Your task to perform on an android device: stop showing notifications on the lock screen Image 0: 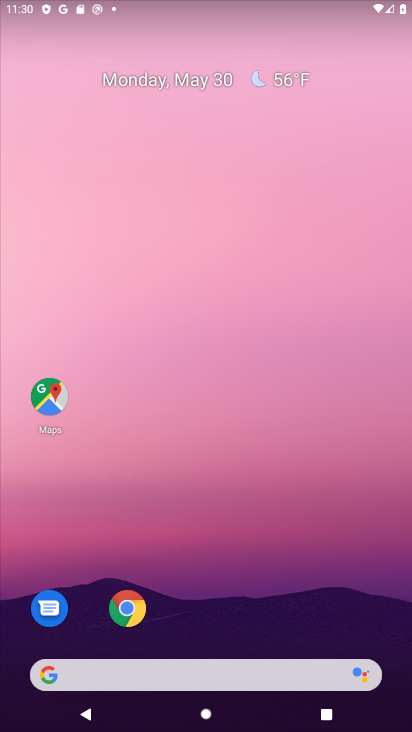
Step 0: drag from (215, 621) to (275, 61)
Your task to perform on an android device: stop showing notifications on the lock screen Image 1: 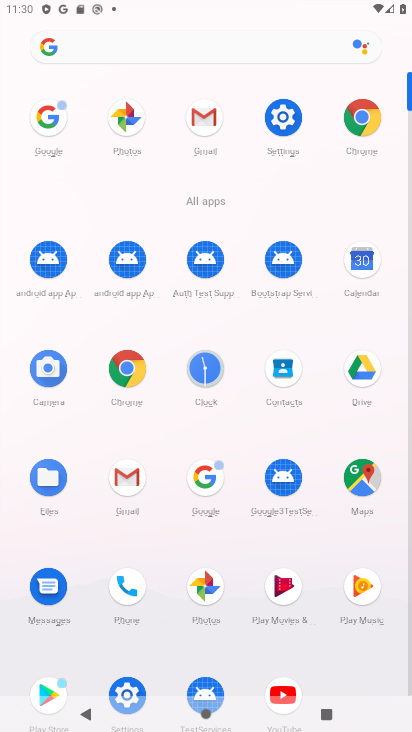
Step 1: click (280, 115)
Your task to perform on an android device: stop showing notifications on the lock screen Image 2: 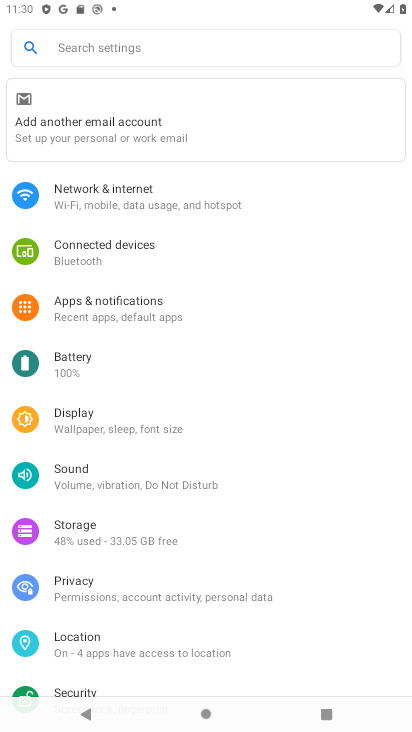
Step 2: click (120, 194)
Your task to perform on an android device: stop showing notifications on the lock screen Image 3: 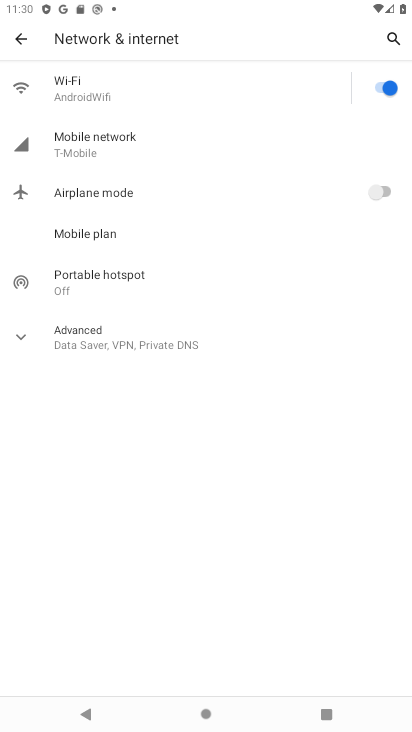
Step 3: press back button
Your task to perform on an android device: stop showing notifications on the lock screen Image 4: 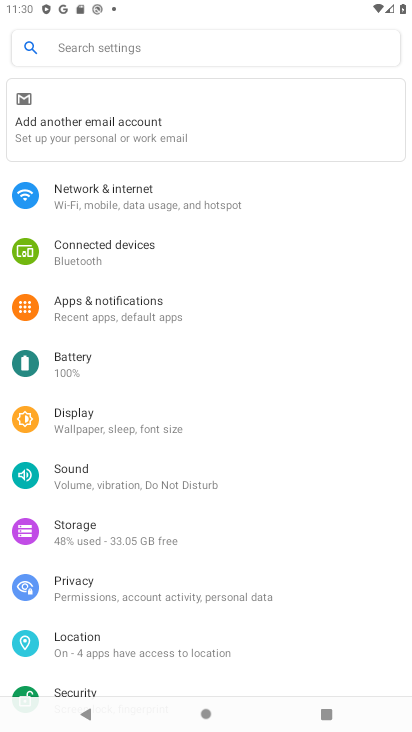
Step 4: click (140, 300)
Your task to perform on an android device: stop showing notifications on the lock screen Image 5: 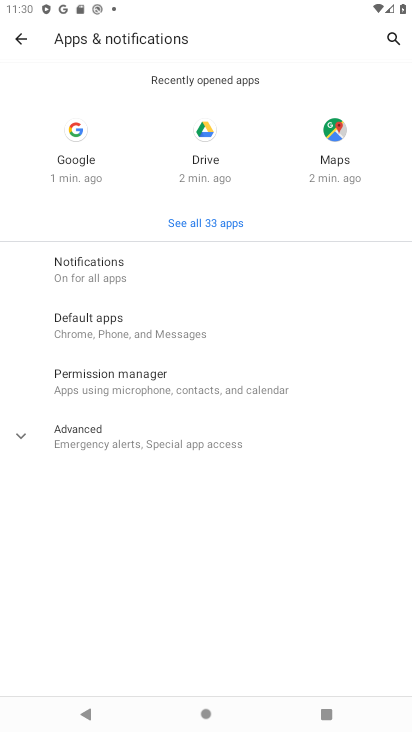
Step 5: click (119, 278)
Your task to perform on an android device: stop showing notifications on the lock screen Image 6: 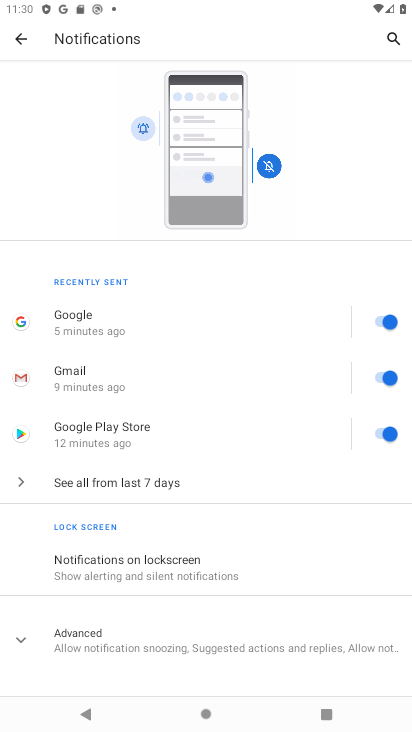
Step 6: click (124, 571)
Your task to perform on an android device: stop showing notifications on the lock screen Image 7: 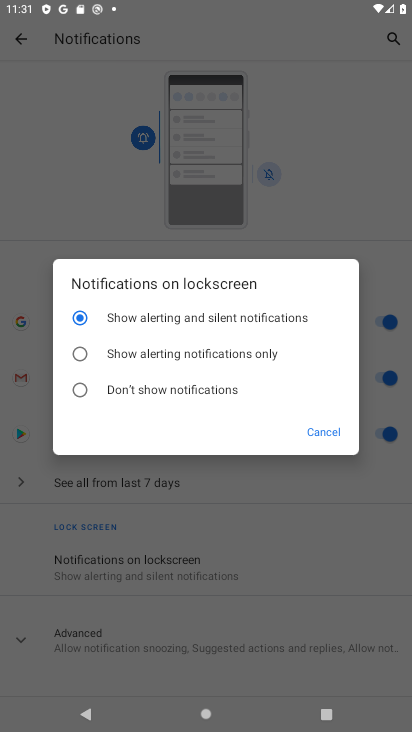
Step 7: click (80, 391)
Your task to perform on an android device: stop showing notifications on the lock screen Image 8: 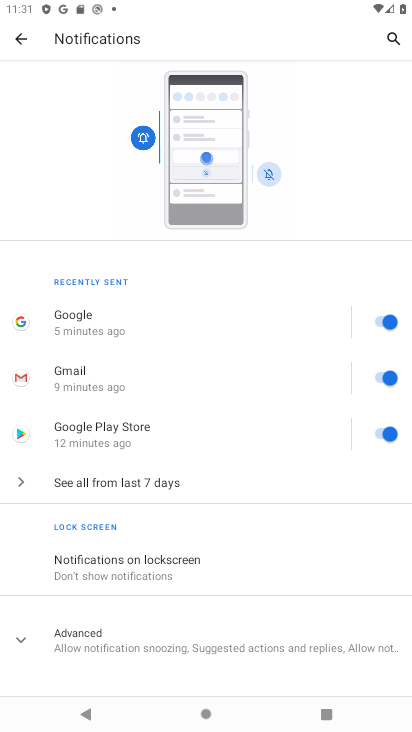
Step 8: task complete